Your task to perform on an android device: check google app version Image 0: 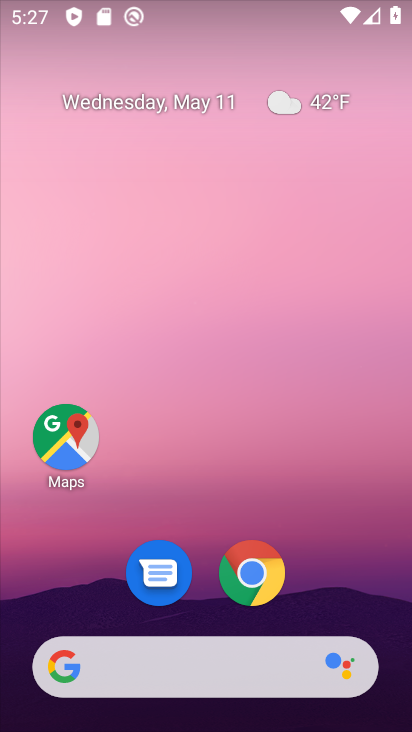
Step 0: drag from (331, 611) to (283, 230)
Your task to perform on an android device: check google app version Image 1: 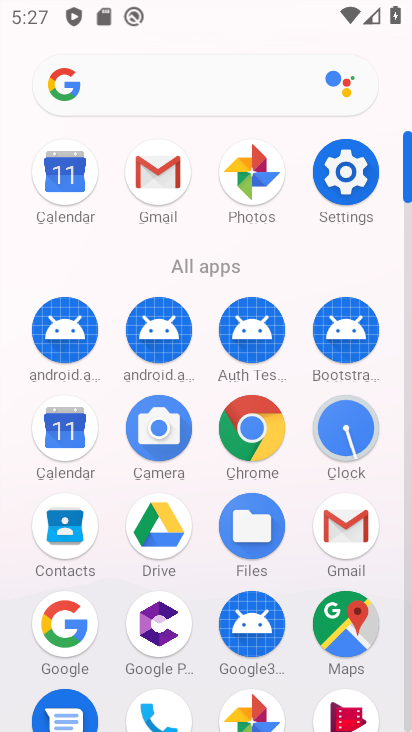
Step 1: click (64, 634)
Your task to perform on an android device: check google app version Image 2: 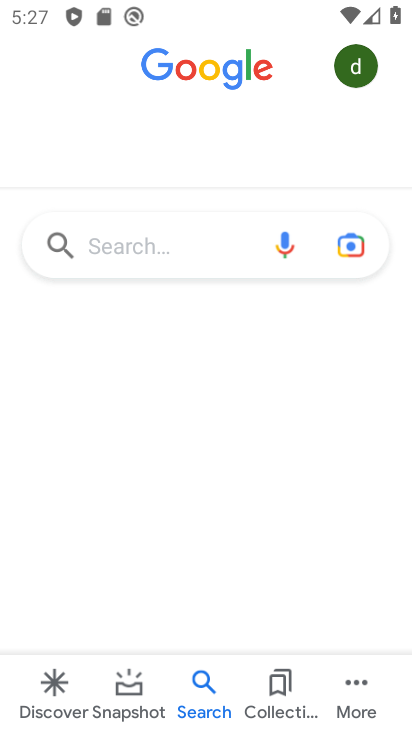
Step 2: click (339, 705)
Your task to perform on an android device: check google app version Image 3: 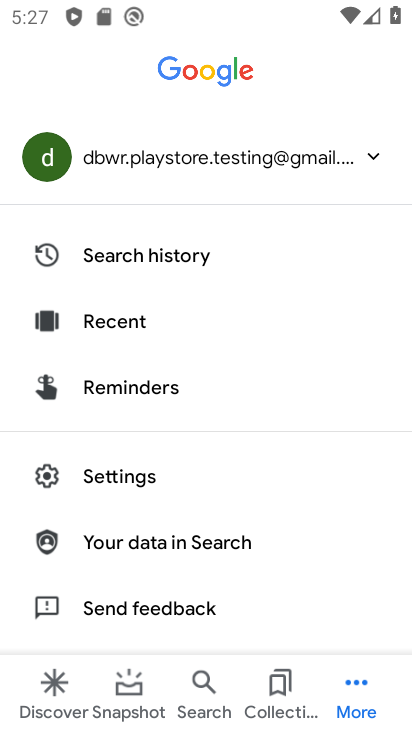
Step 3: drag from (167, 581) to (156, 266)
Your task to perform on an android device: check google app version Image 4: 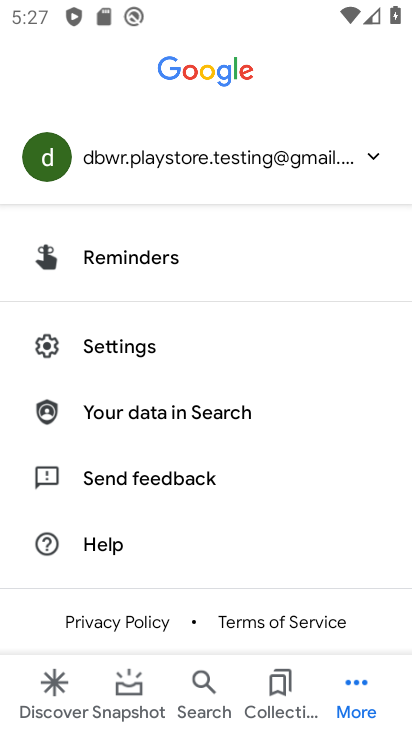
Step 4: click (136, 351)
Your task to perform on an android device: check google app version Image 5: 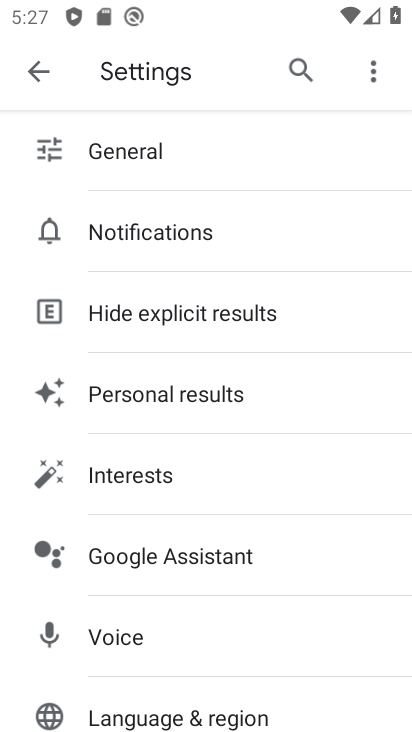
Step 5: drag from (204, 636) to (198, 323)
Your task to perform on an android device: check google app version Image 6: 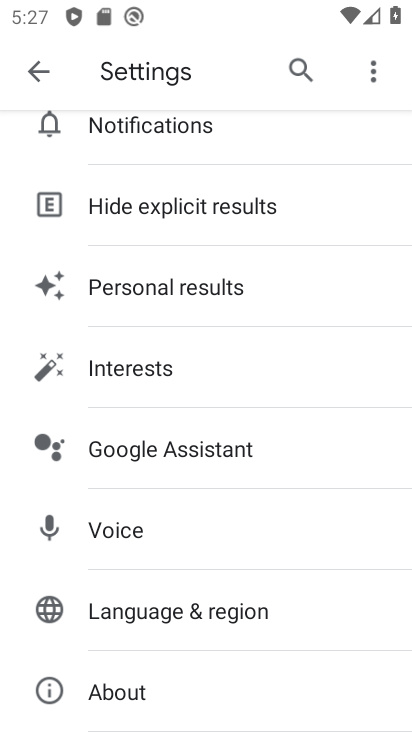
Step 6: drag from (164, 635) to (160, 351)
Your task to perform on an android device: check google app version Image 7: 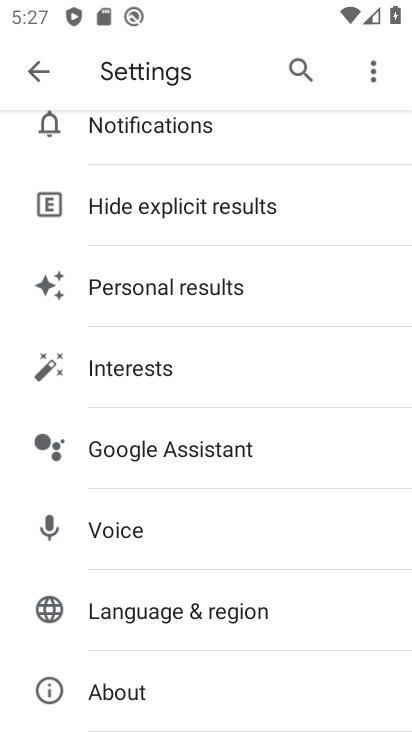
Step 7: click (161, 690)
Your task to perform on an android device: check google app version Image 8: 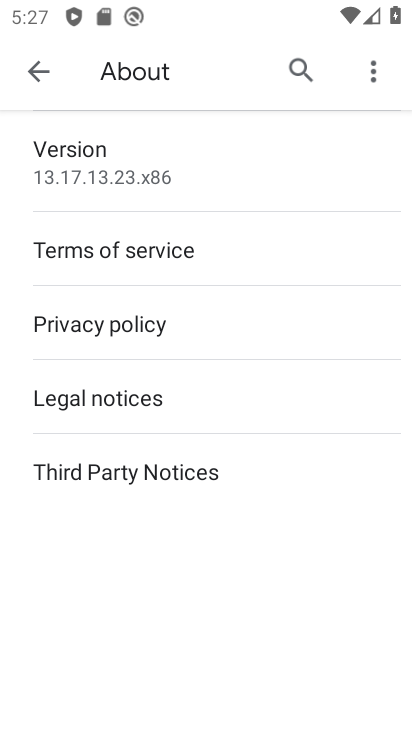
Step 8: task complete